Your task to perform on an android device: turn off translation in the chrome app Image 0: 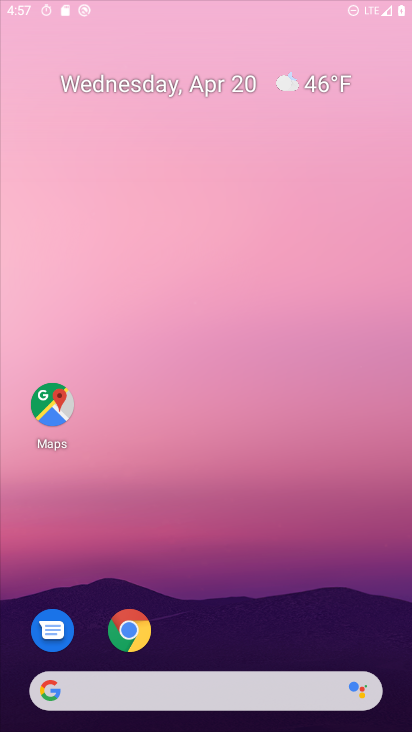
Step 0: drag from (232, 638) to (223, 0)
Your task to perform on an android device: turn off translation in the chrome app Image 1: 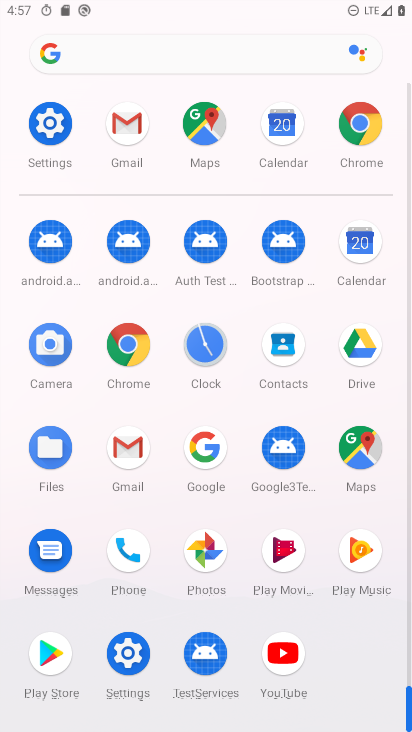
Step 1: drag from (229, 1) to (334, 730)
Your task to perform on an android device: turn off translation in the chrome app Image 2: 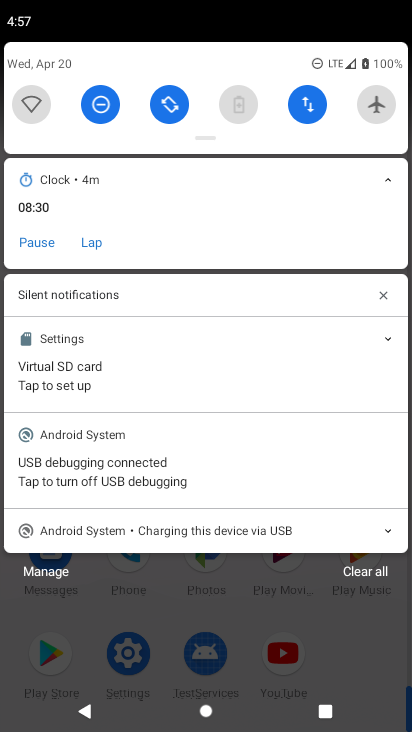
Step 2: drag from (225, 138) to (262, 716)
Your task to perform on an android device: turn off translation in the chrome app Image 3: 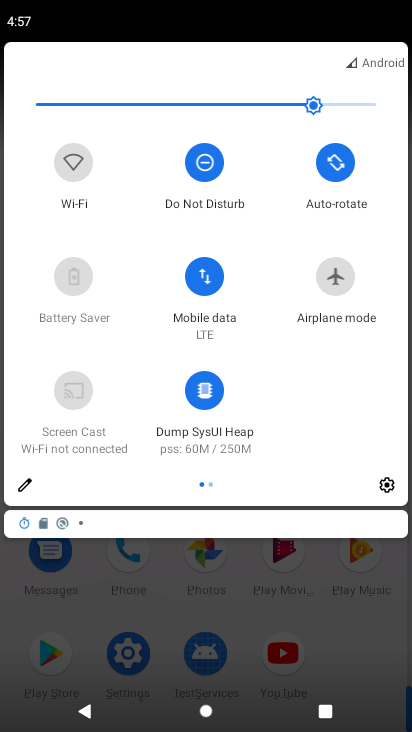
Step 3: drag from (327, 556) to (331, 19)
Your task to perform on an android device: turn off translation in the chrome app Image 4: 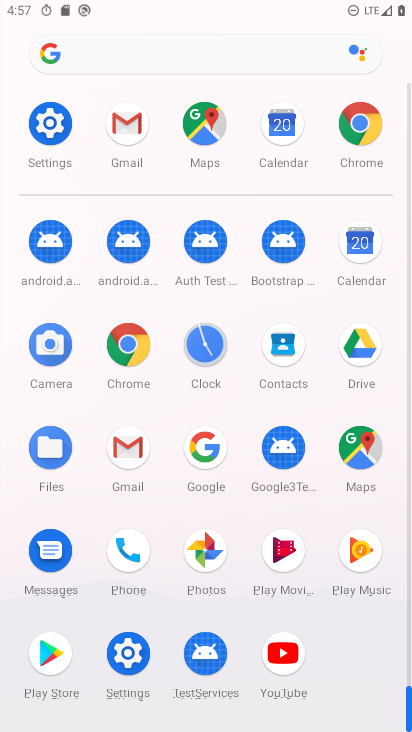
Step 4: click (144, 339)
Your task to perform on an android device: turn off translation in the chrome app Image 5: 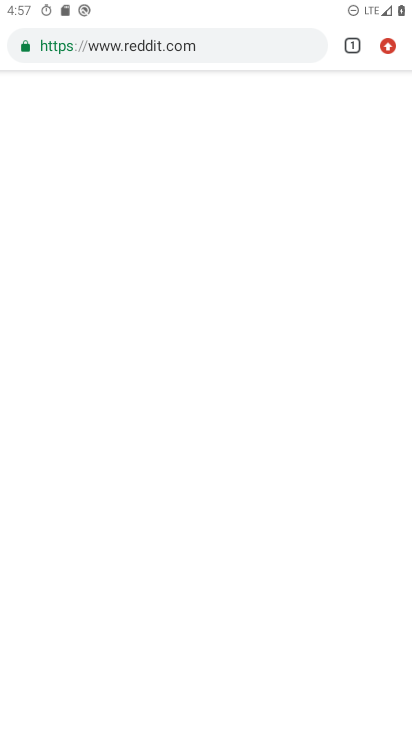
Step 5: click (382, 44)
Your task to perform on an android device: turn off translation in the chrome app Image 6: 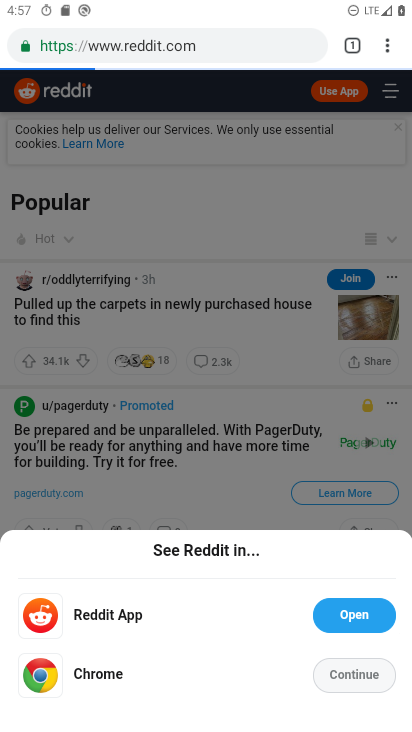
Step 6: drag from (387, 45) to (246, 614)
Your task to perform on an android device: turn off translation in the chrome app Image 7: 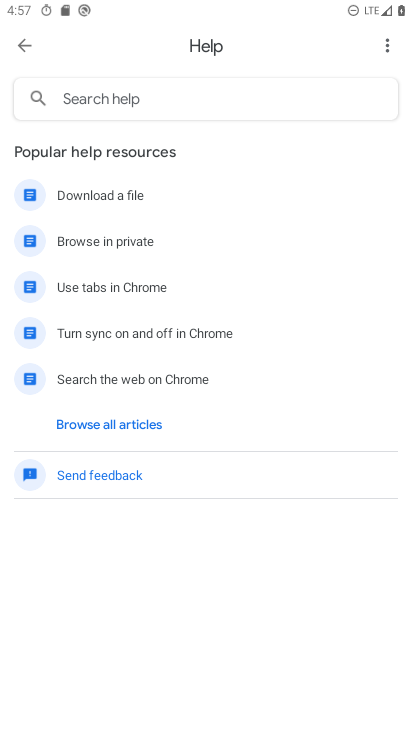
Step 7: press back button
Your task to perform on an android device: turn off translation in the chrome app Image 8: 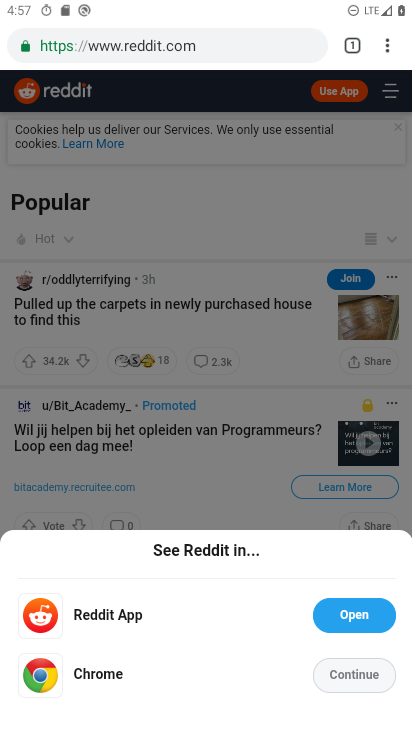
Step 8: drag from (386, 42) to (245, 593)
Your task to perform on an android device: turn off translation in the chrome app Image 9: 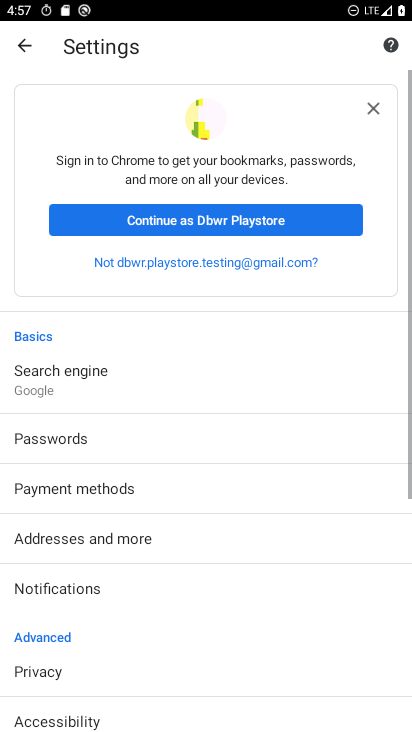
Step 9: drag from (203, 566) to (194, 237)
Your task to perform on an android device: turn off translation in the chrome app Image 10: 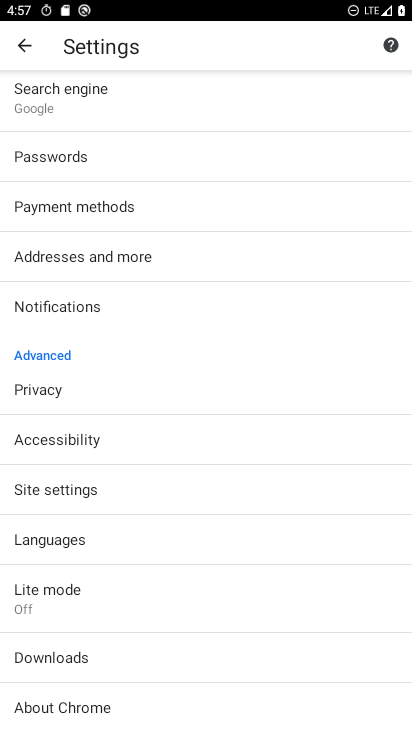
Step 10: click (83, 547)
Your task to perform on an android device: turn off translation in the chrome app Image 11: 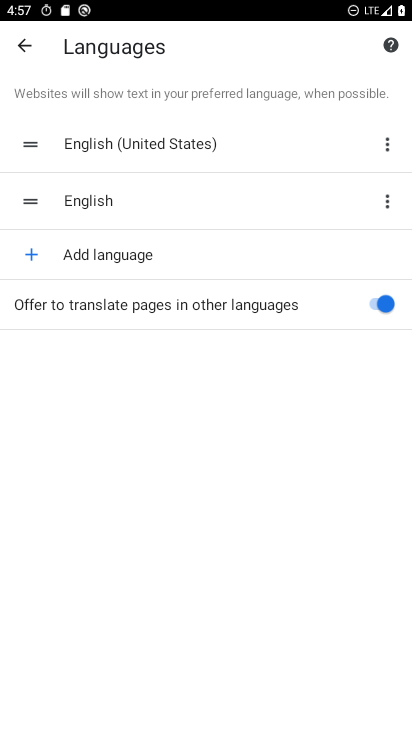
Step 11: click (372, 302)
Your task to perform on an android device: turn off translation in the chrome app Image 12: 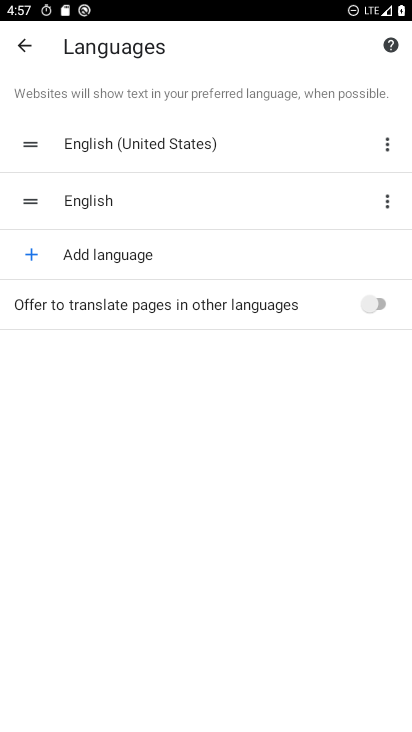
Step 12: task complete